Your task to perform on an android device: check the backup settings in the google photos Image 0: 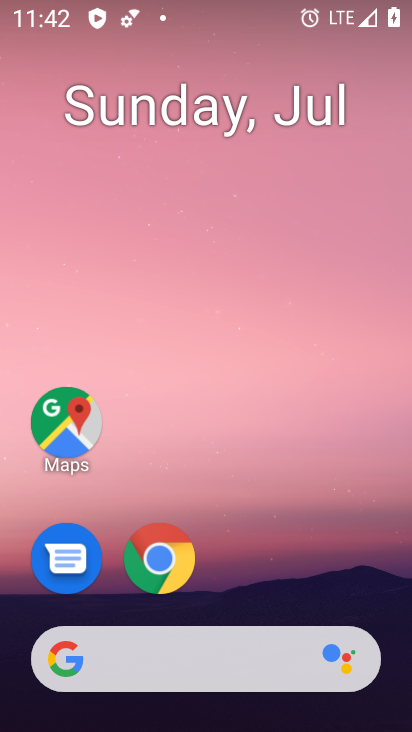
Step 0: drag from (233, 584) to (275, 46)
Your task to perform on an android device: check the backup settings in the google photos Image 1: 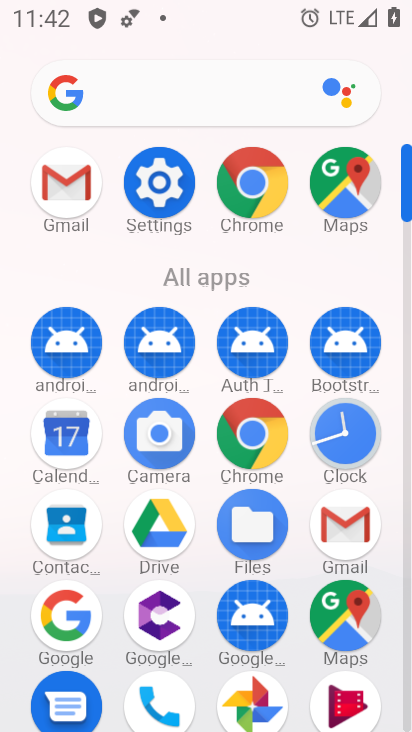
Step 1: click (258, 697)
Your task to perform on an android device: check the backup settings in the google photos Image 2: 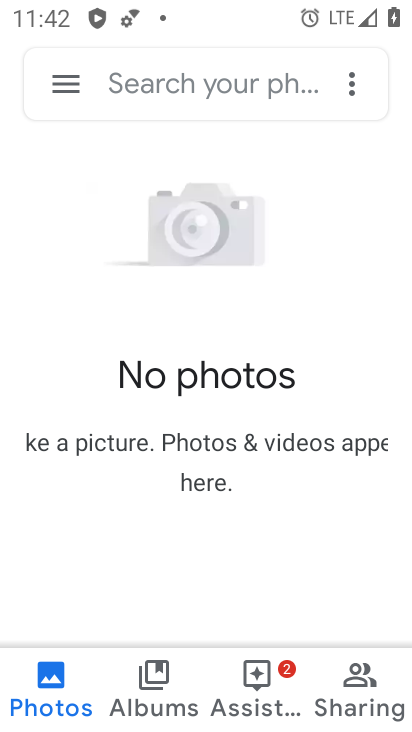
Step 2: click (58, 76)
Your task to perform on an android device: check the backup settings in the google photos Image 3: 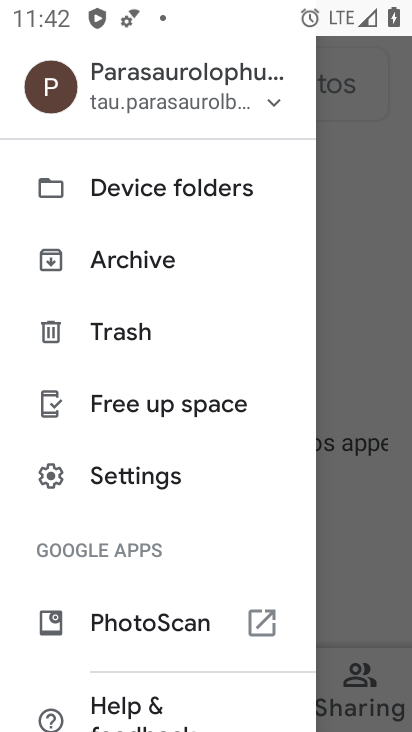
Step 3: click (171, 462)
Your task to perform on an android device: check the backup settings in the google photos Image 4: 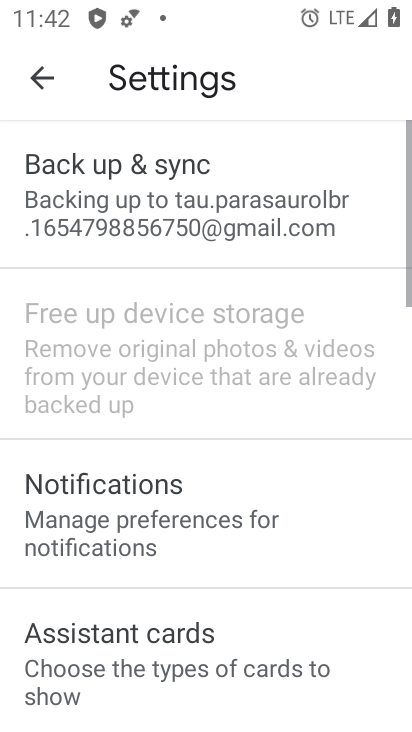
Step 4: click (153, 216)
Your task to perform on an android device: check the backup settings in the google photos Image 5: 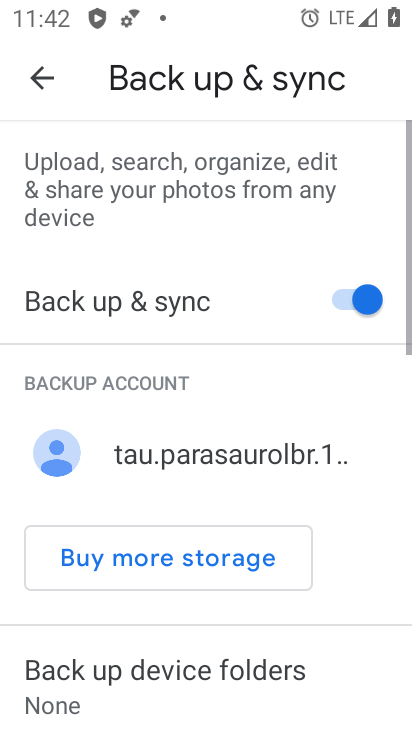
Step 5: drag from (181, 626) to (219, 148)
Your task to perform on an android device: check the backup settings in the google photos Image 6: 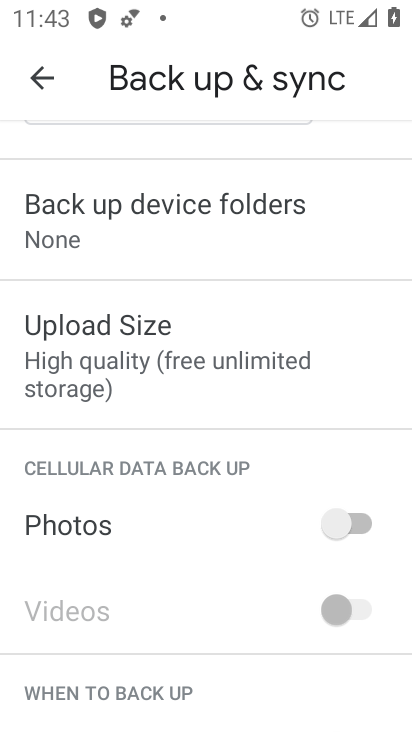
Step 6: click (128, 367)
Your task to perform on an android device: check the backup settings in the google photos Image 7: 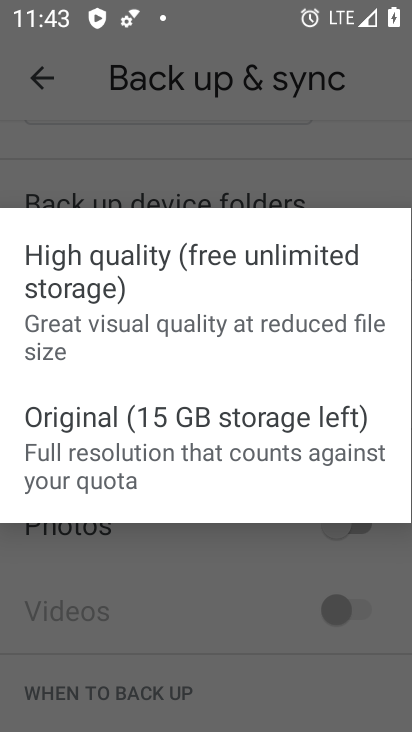
Step 7: click (118, 445)
Your task to perform on an android device: check the backup settings in the google photos Image 8: 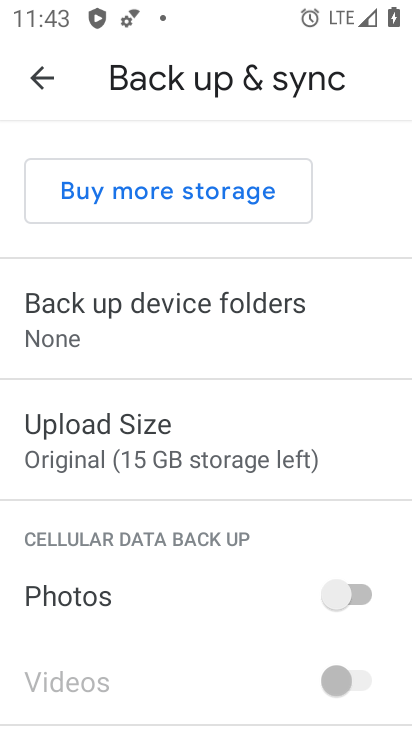
Step 8: task complete